Your task to perform on an android device: empty trash in google photos Image 0: 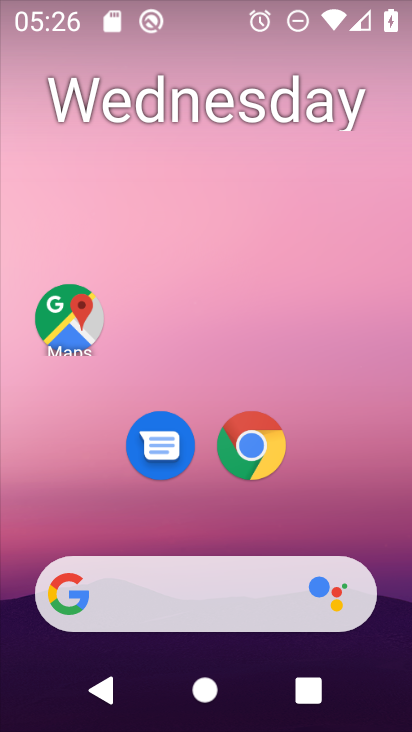
Step 0: drag from (181, 547) to (200, 317)
Your task to perform on an android device: empty trash in google photos Image 1: 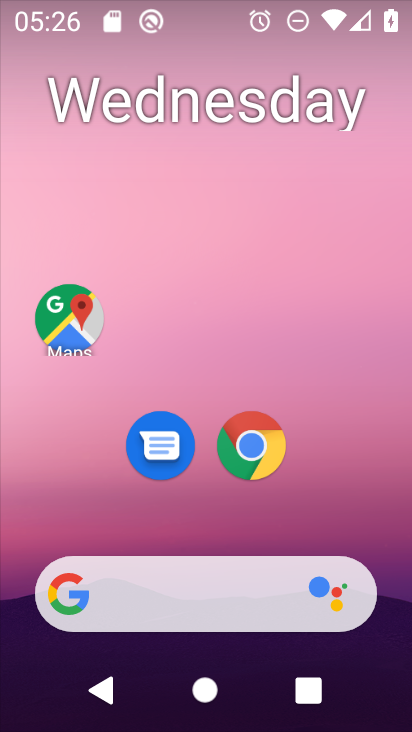
Step 1: drag from (183, 511) to (192, 178)
Your task to perform on an android device: empty trash in google photos Image 2: 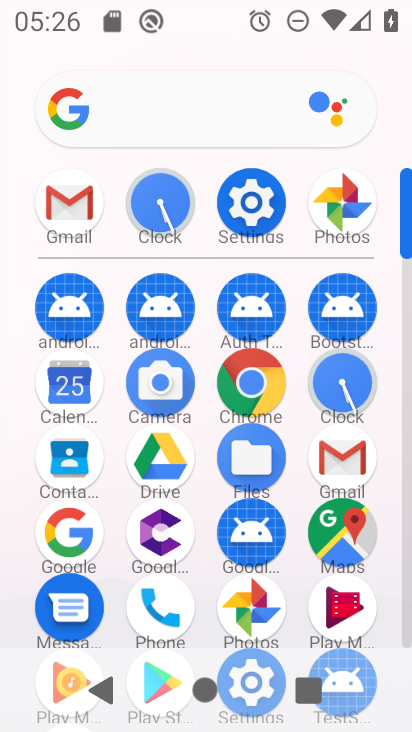
Step 2: click (363, 197)
Your task to perform on an android device: empty trash in google photos Image 3: 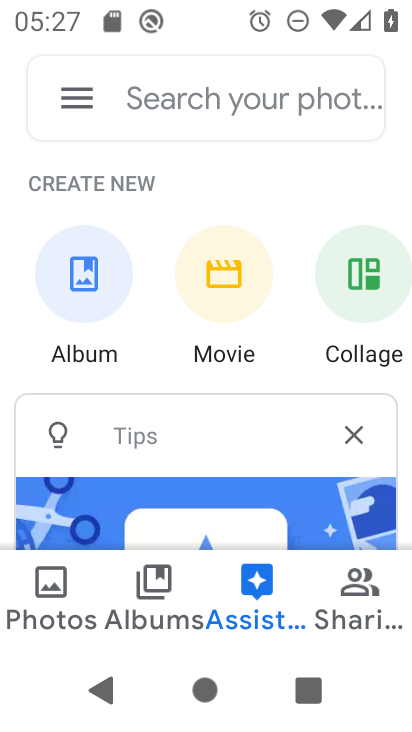
Step 3: click (93, 108)
Your task to perform on an android device: empty trash in google photos Image 4: 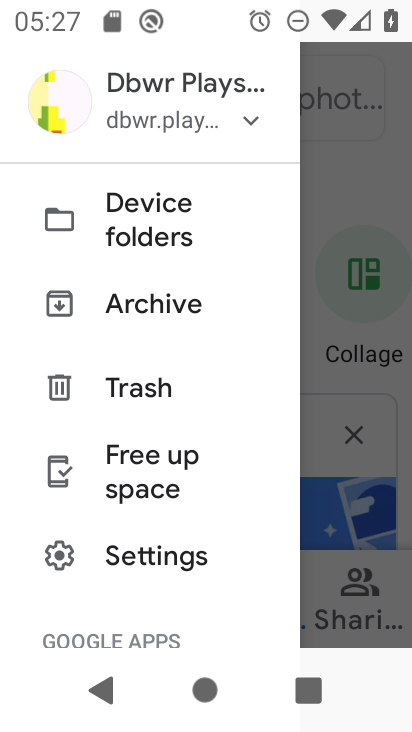
Step 4: click (115, 381)
Your task to perform on an android device: empty trash in google photos Image 5: 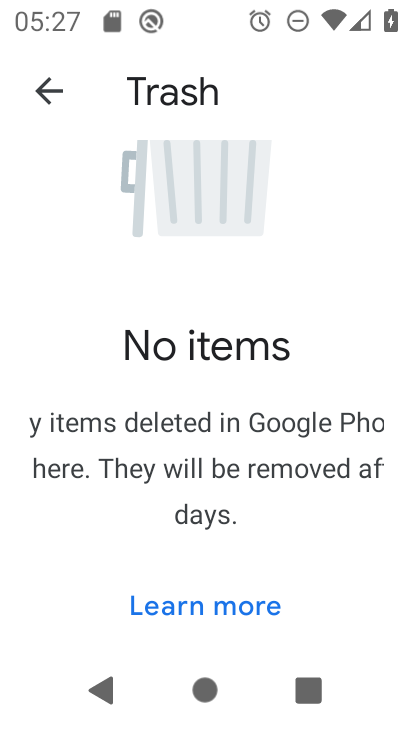
Step 5: task complete